Your task to perform on an android device: turn off notifications settings in the gmail app Image 0: 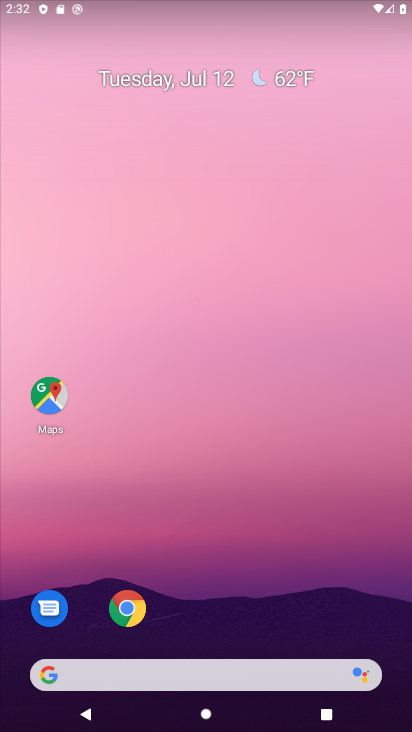
Step 0: drag from (185, 582) to (298, 42)
Your task to perform on an android device: turn off notifications settings in the gmail app Image 1: 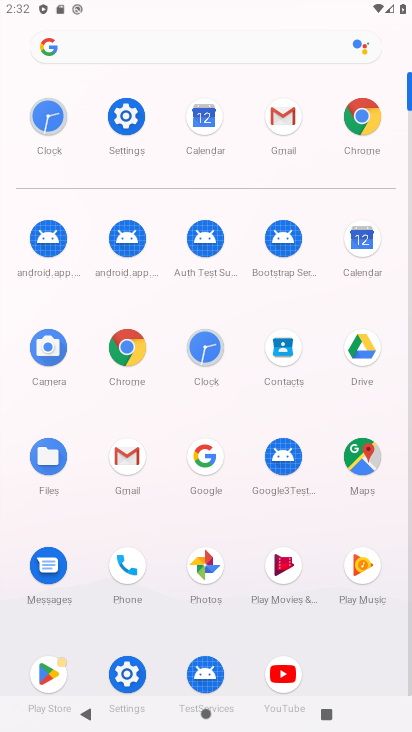
Step 1: click (288, 122)
Your task to perform on an android device: turn off notifications settings in the gmail app Image 2: 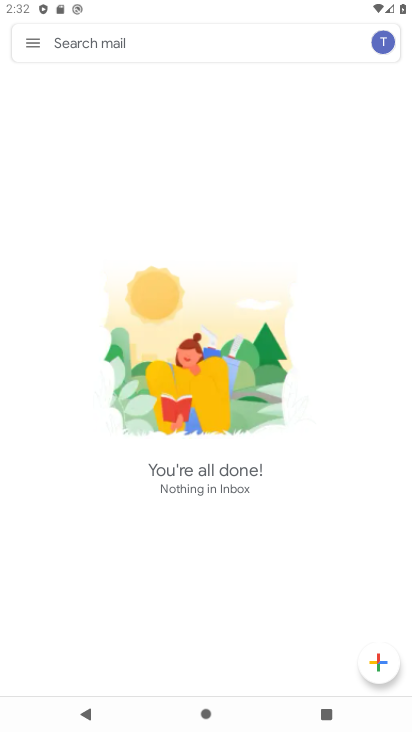
Step 2: click (33, 47)
Your task to perform on an android device: turn off notifications settings in the gmail app Image 3: 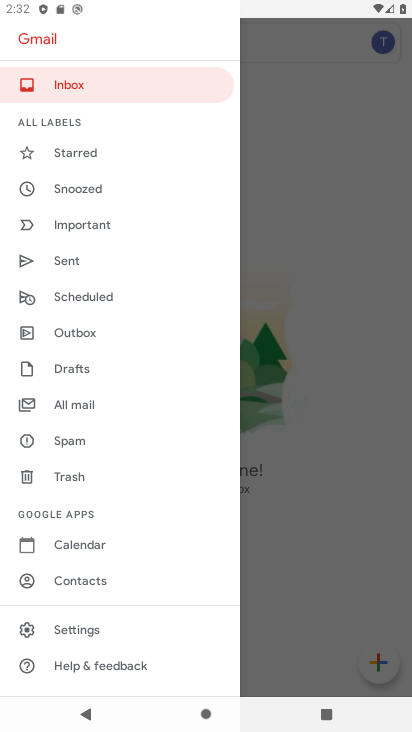
Step 3: click (72, 626)
Your task to perform on an android device: turn off notifications settings in the gmail app Image 4: 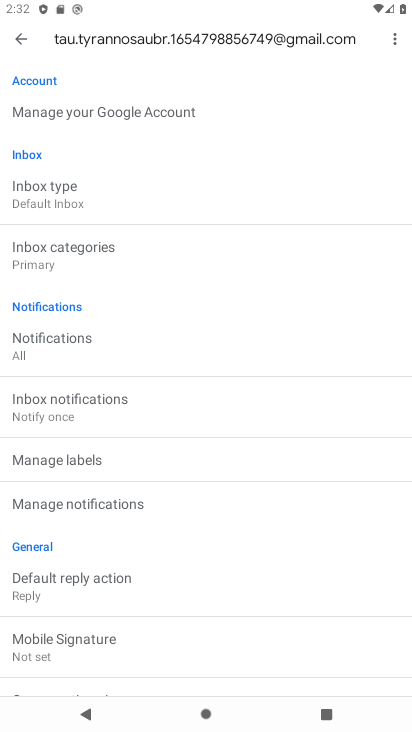
Step 4: click (58, 348)
Your task to perform on an android device: turn off notifications settings in the gmail app Image 5: 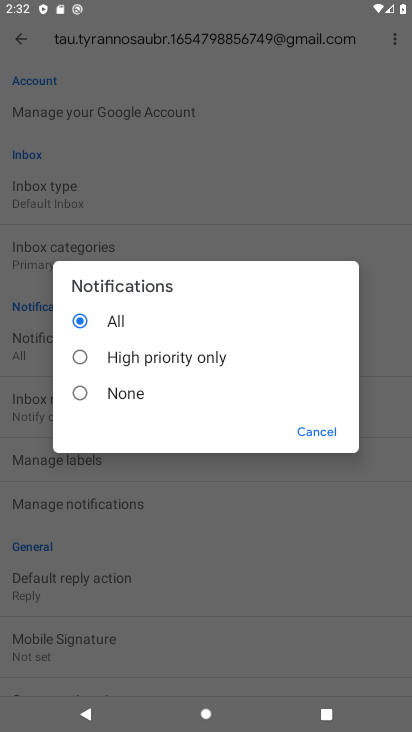
Step 5: click (74, 394)
Your task to perform on an android device: turn off notifications settings in the gmail app Image 6: 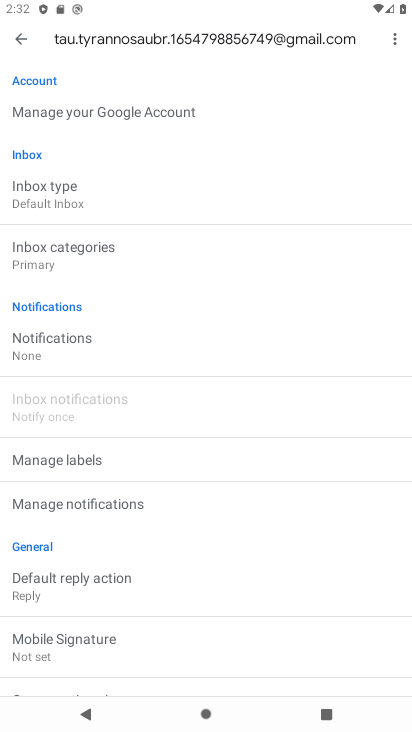
Step 6: task complete